Your task to perform on an android device: change the clock style Image 0: 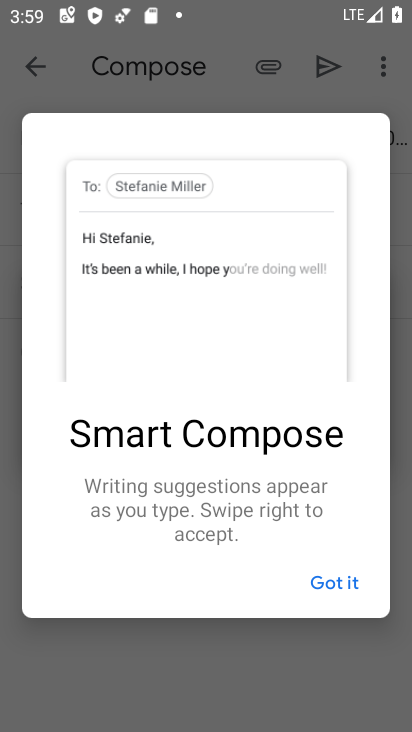
Step 0: press home button
Your task to perform on an android device: change the clock style Image 1: 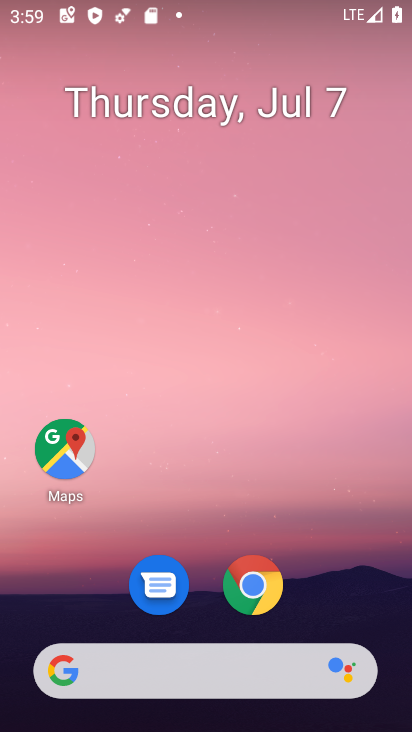
Step 1: drag from (277, 532) to (320, 46)
Your task to perform on an android device: change the clock style Image 2: 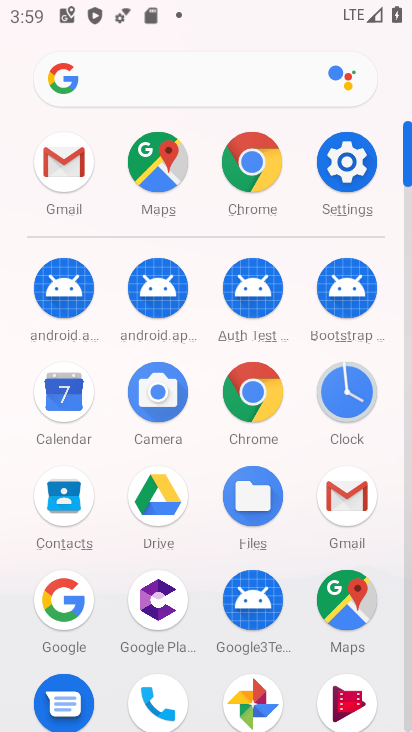
Step 2: click (340, 384)
Your task to perform on an android device: change the clock style Image 3: 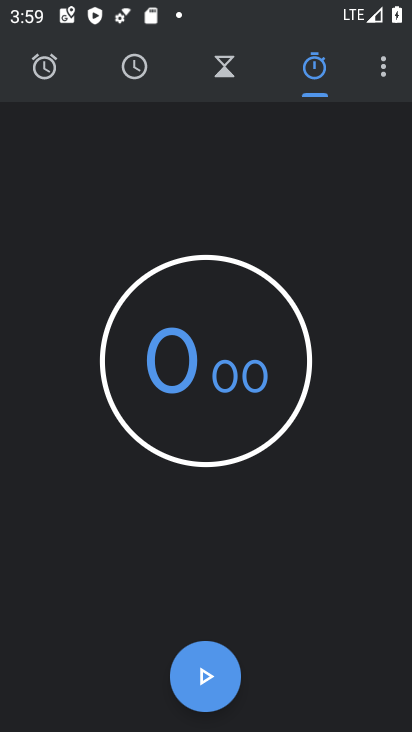
Step 3: click (142, 61)
Your task to perform on an android device: change the clock style Image 4: 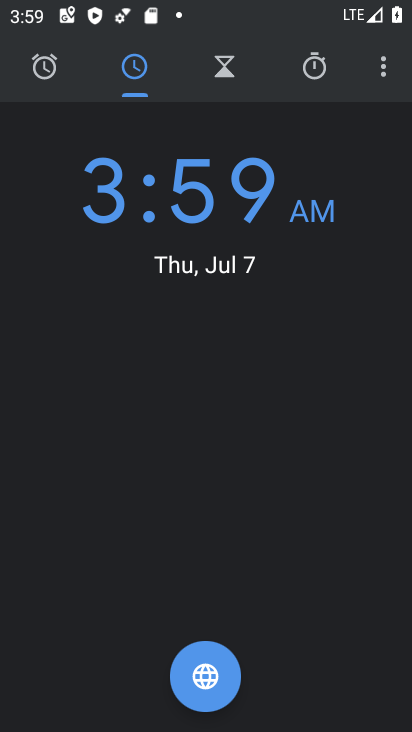
Step 4: click (382, 70)
Your task to perform on an android device: change the clock style Image 5: 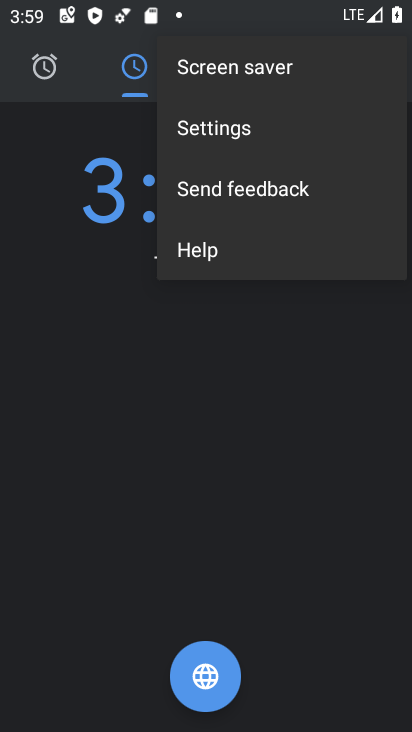
Step 5: click (259, 138)
Your task to perform on an android device: change the clock style Image 6: 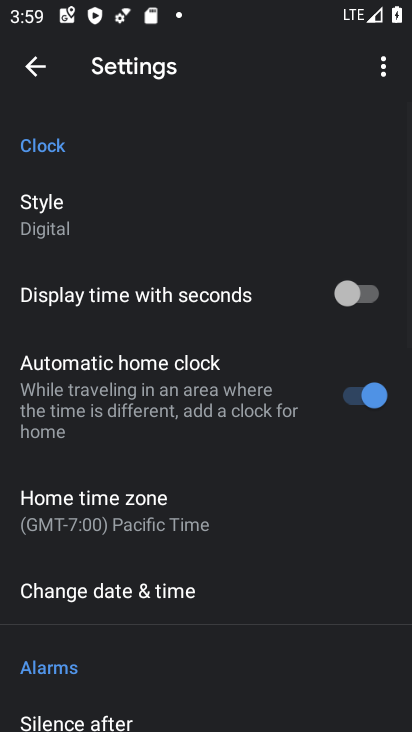
Step 6: click (72, 213)
Your task to perform on an android device: change the clock style Image 7: 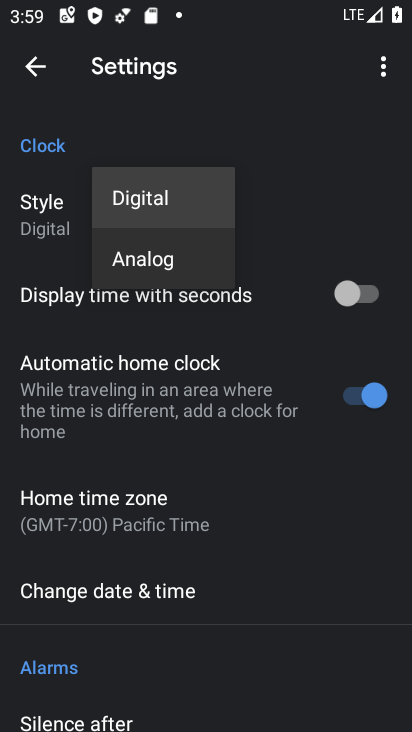
Step 7: click (130, 251)
Your task to perform on an android device: change the clock style Image 8: 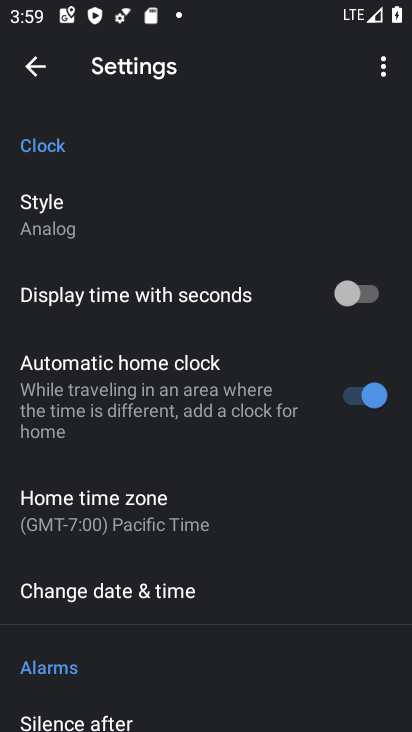
Step 8: click (45, 78)
Your task to perform on an android device: change the clock style Image 9: 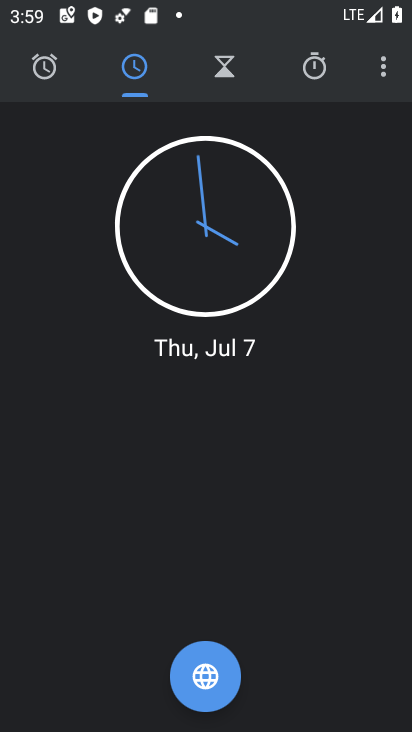
Step 9: task complete